Your task to perform on an android device: toggle data saver in the chrome app Image 0: 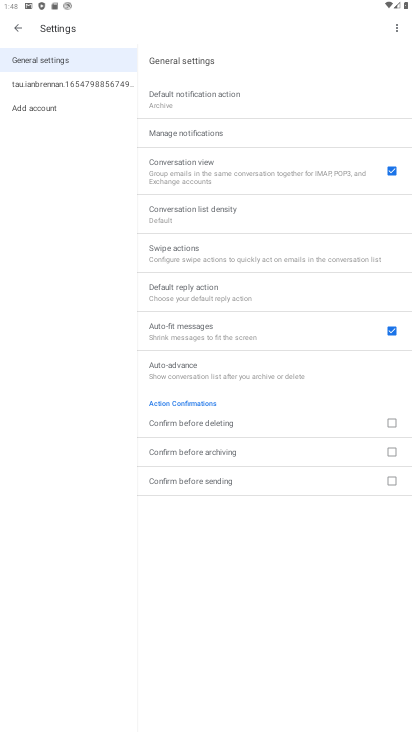
Step 0: press home button
Your task to perform on an android device: toggle data saver in the chrome app Image 1: 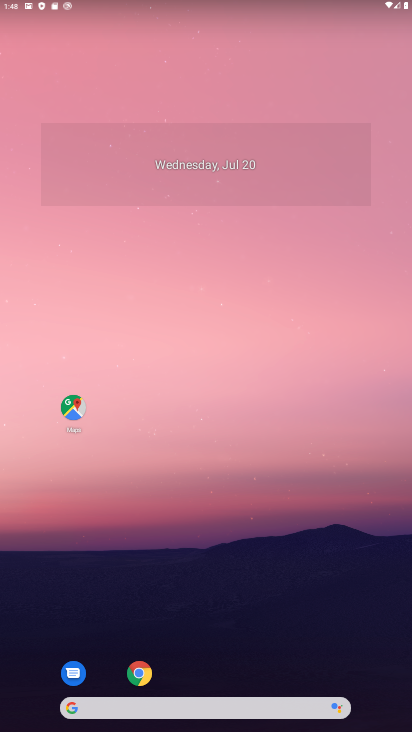
Step 1: click (140, 676)
Your task to perform on an android device: toggle data saver in the chrome app Image 2: 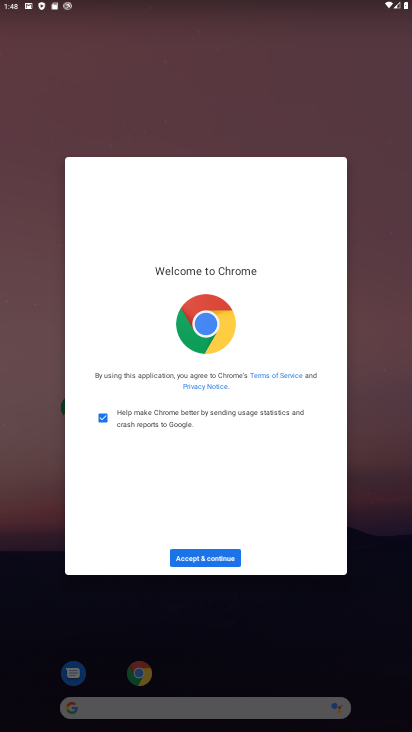
Step 2: click (193, 559)
Your task to perform on an android device: toggle data saver in the chrome app Image 3: 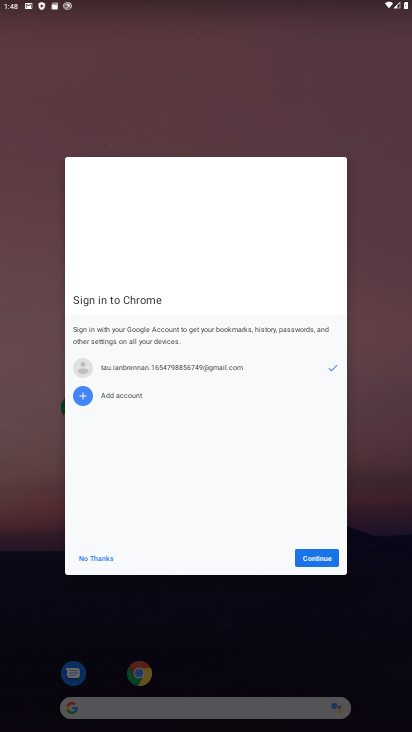
Step 3: click (306, 559)
Your task to perform on an android device: toggle data saver in the chrome app Image 4: 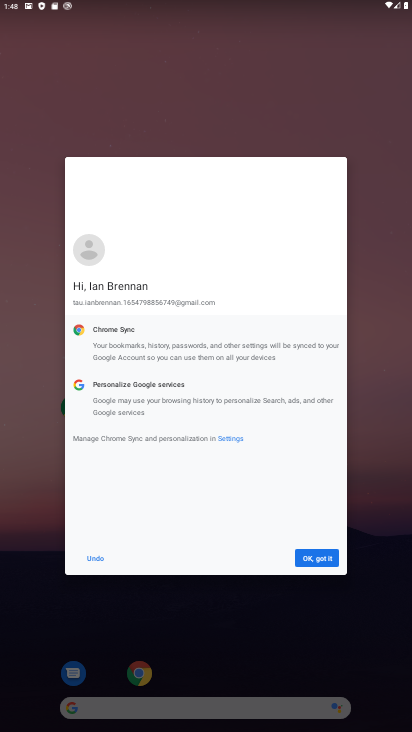
Step 4: click (306, 559)
Your task to perform on an android device: toggle data saver in the chrome app Image 5: 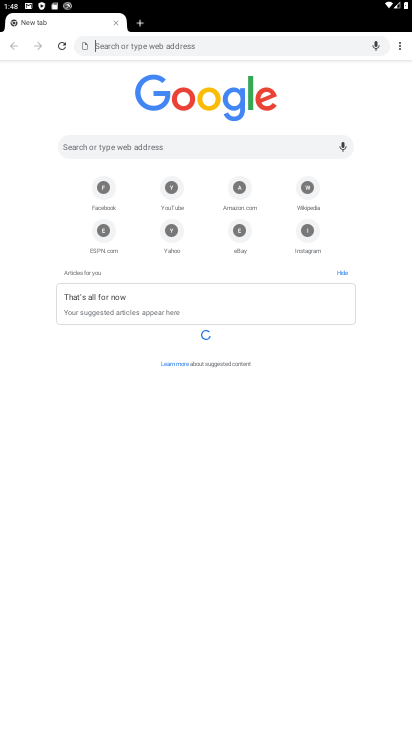
Step 5: click (397, 48)
Your task to perform on an android device: toggle data saver in the chrome app Image 6: 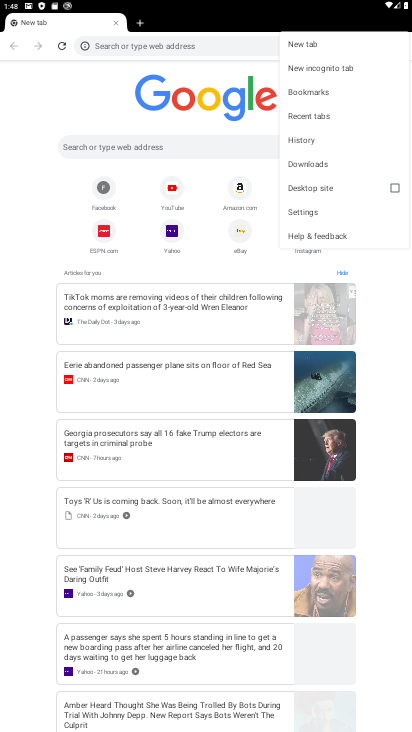
Step 6: click (297, 214)
Your task to perform on an android device: toggle data saver in the chrome app Image 7: 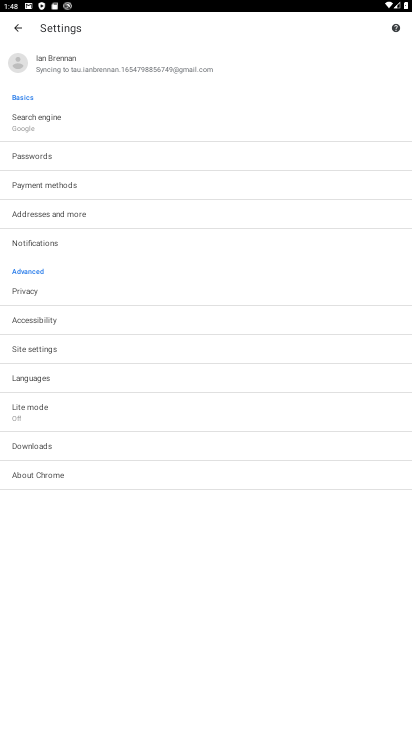
Step 7: click (34, 415)
Your task to perform on an android device: toggle data saver in the chrome app Image 8: 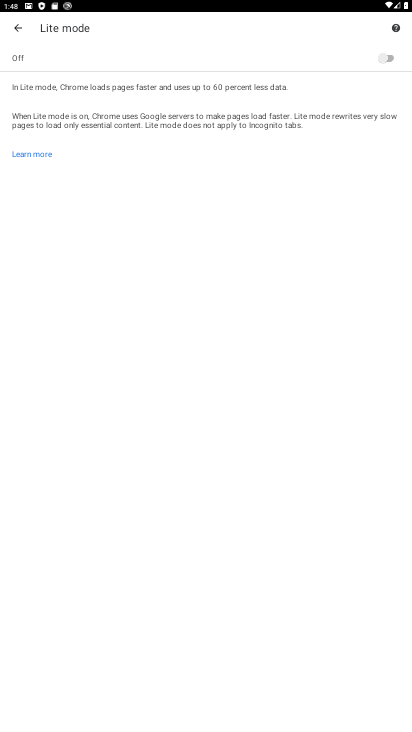
Step 8: click (386, 58)
Your task to perform on an android device: toggle data saver in the chrome app Image 9: 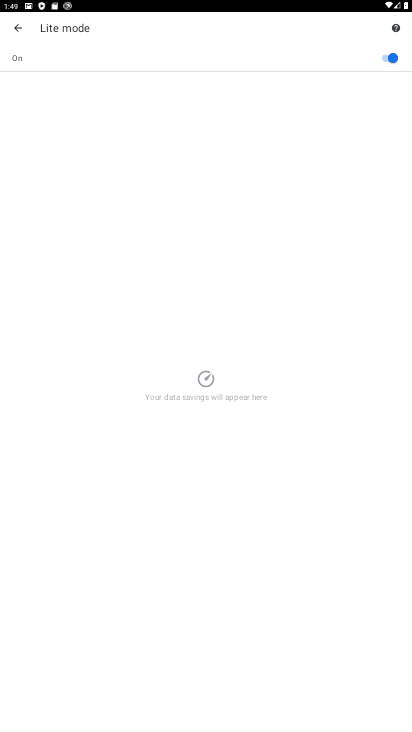
Step 9: task complete